Your task to perform on an android device: turn off wifi Image 0: 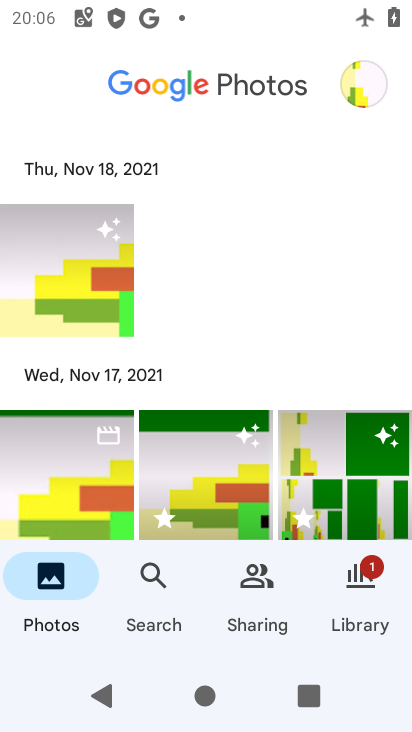
Step 0: press home button
Your task to perform on an android device: turn off wifi Image 1: 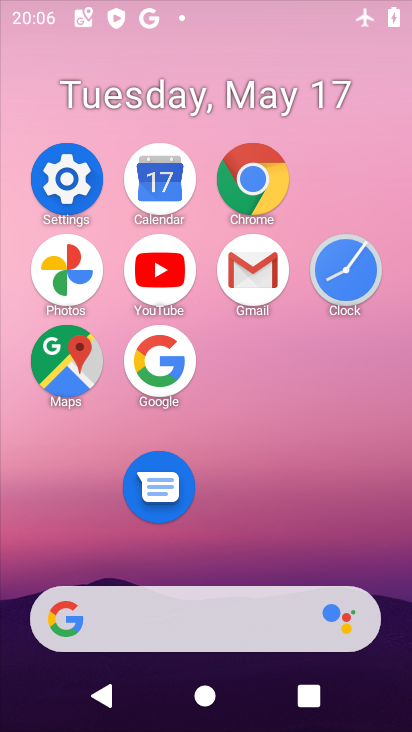
Step 1: click (100, 167)
Your task to perform on an android device: turn off wifi Image 2: 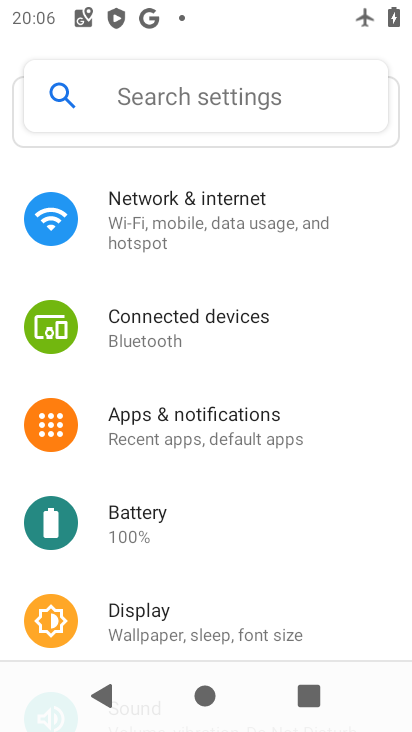
Step 2: click (149, 245)
Your task to perform on an android device: turn off wifi Image 3: 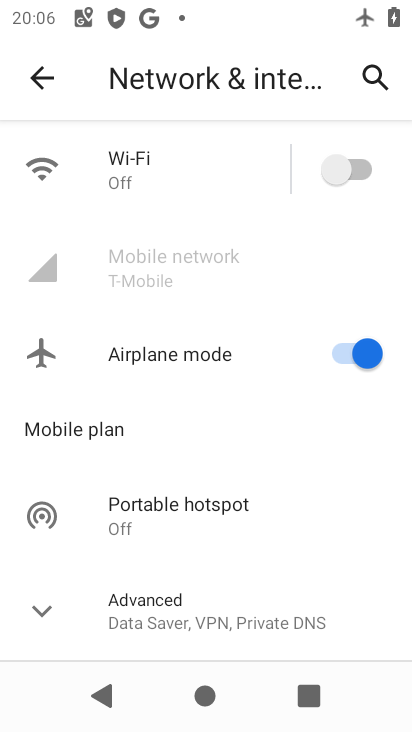
Step 3: task complete